Your task to perform on an android device: check out phone information Image 0: 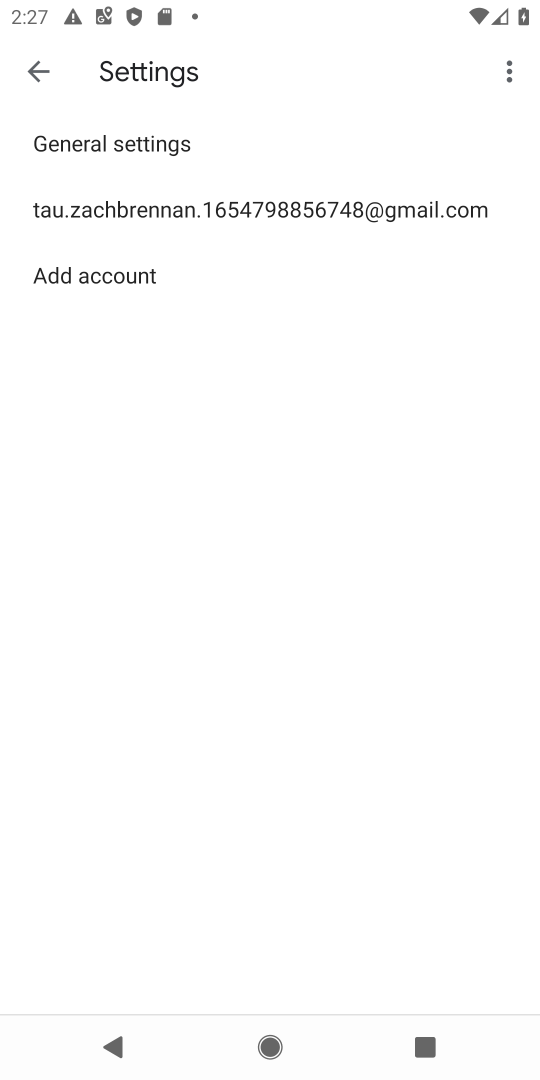
Step 0: press back button
Your task to perform on an android device: check out phone information Image 1: 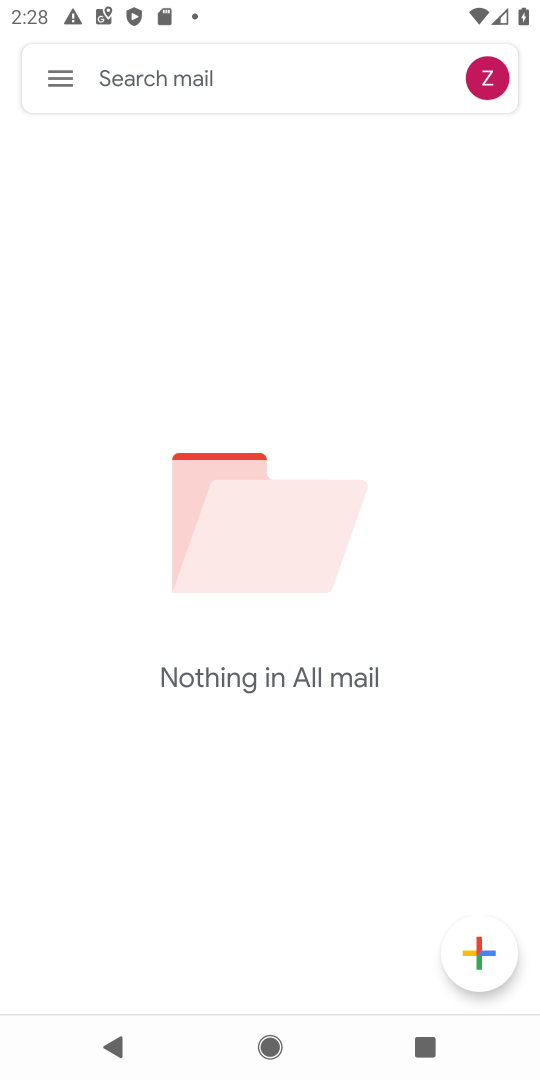
Step 1: press back button
Your task to perform on an android device: check out phone information Image 2: 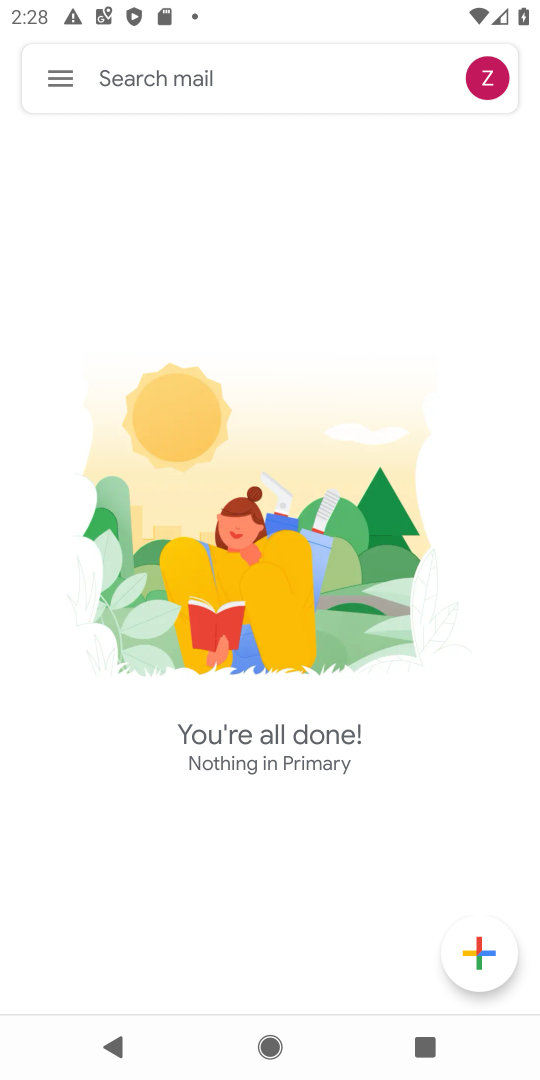
Step 2: press home button
Your task to perform on an android device: check out phone information Image 3: 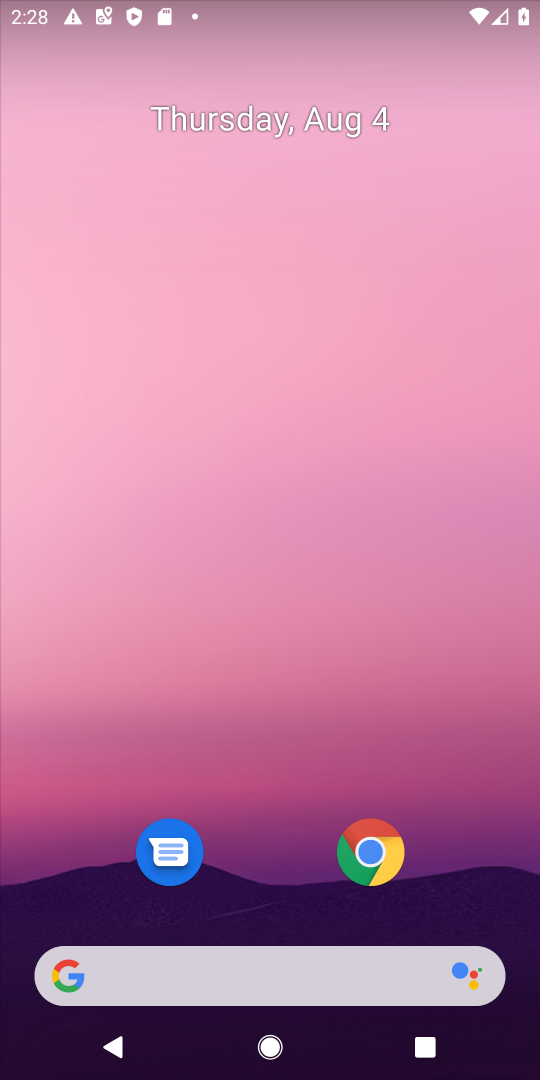
Step 3: drag from (127, 877) to (279, 61)
Your task to perform on an android device: check out phone information Image 4: 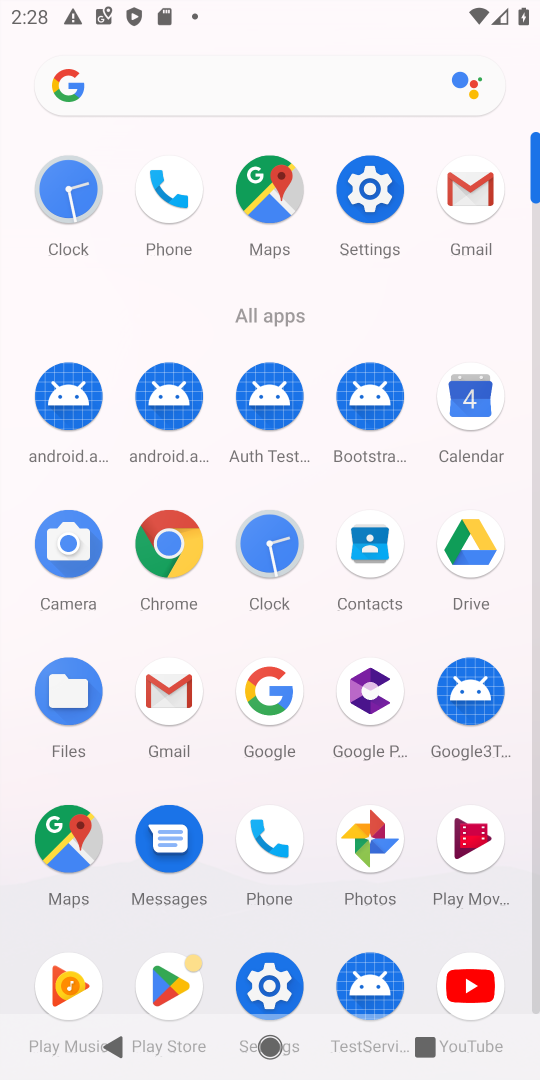
Step 4: click (357, 202)
Your task to perform on an android device: check out phone information Image 5: 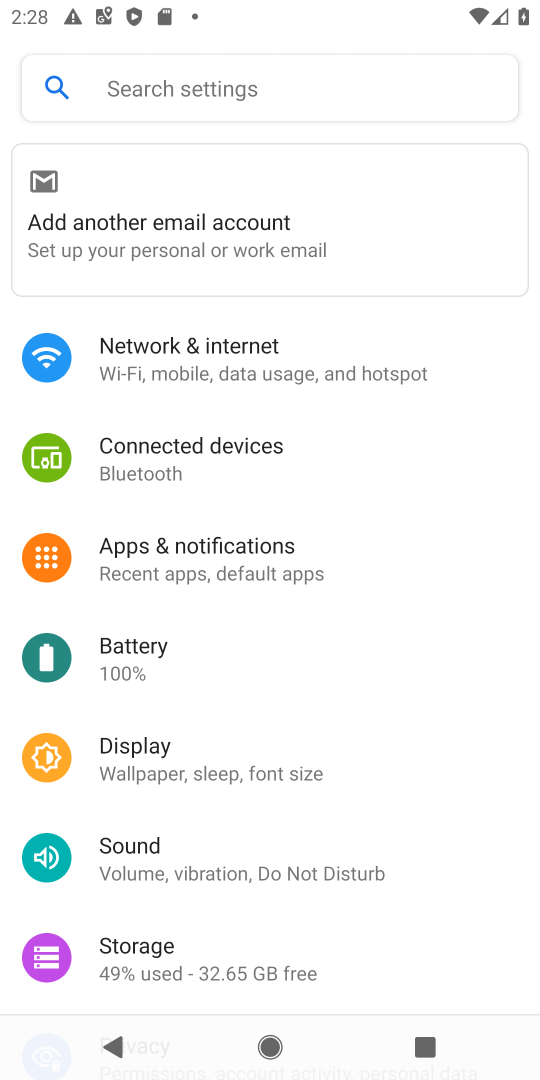
Step 5: drag from (203, 941) to (332, 129)
Your task to perform on an android device: check out phone information Image 6: 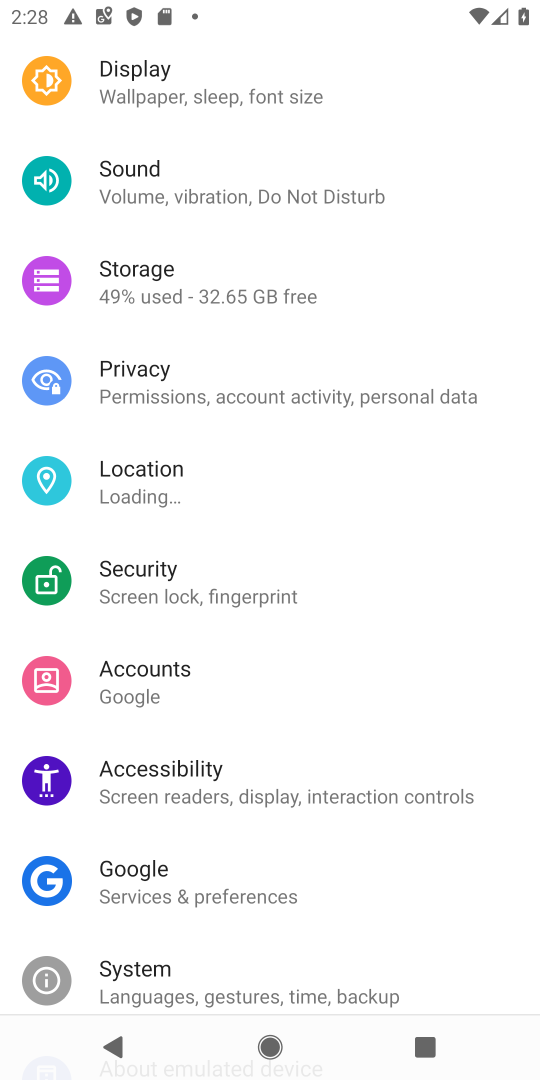
Step 6: drag from (189, 877) to (359, 69)
Your task to perform on an android device: check out phone information Image 7: 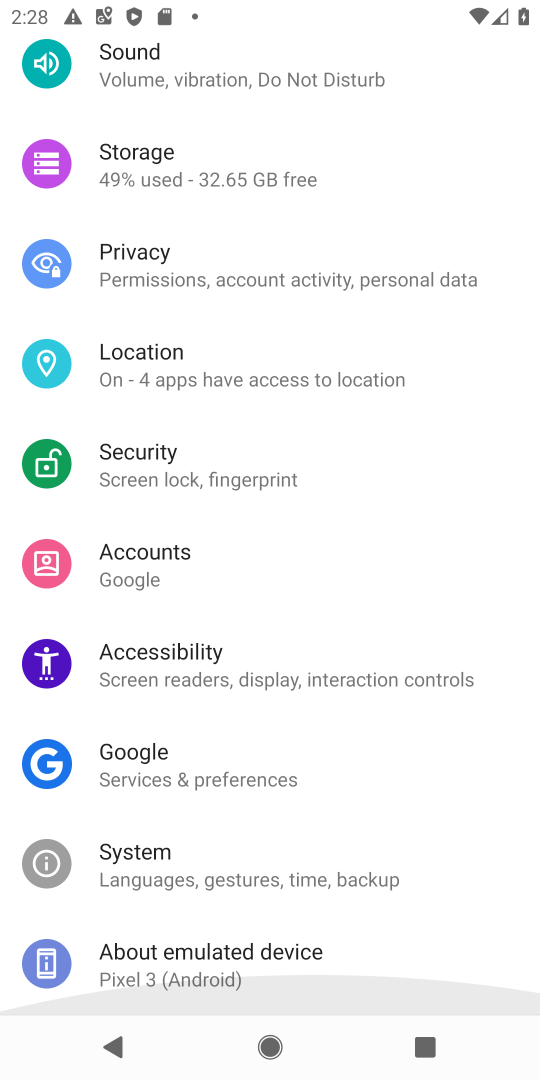
Step 7: drag from (172, 788) to (309, 28)
Your task to perform on an android device: check out phone information Image 8: 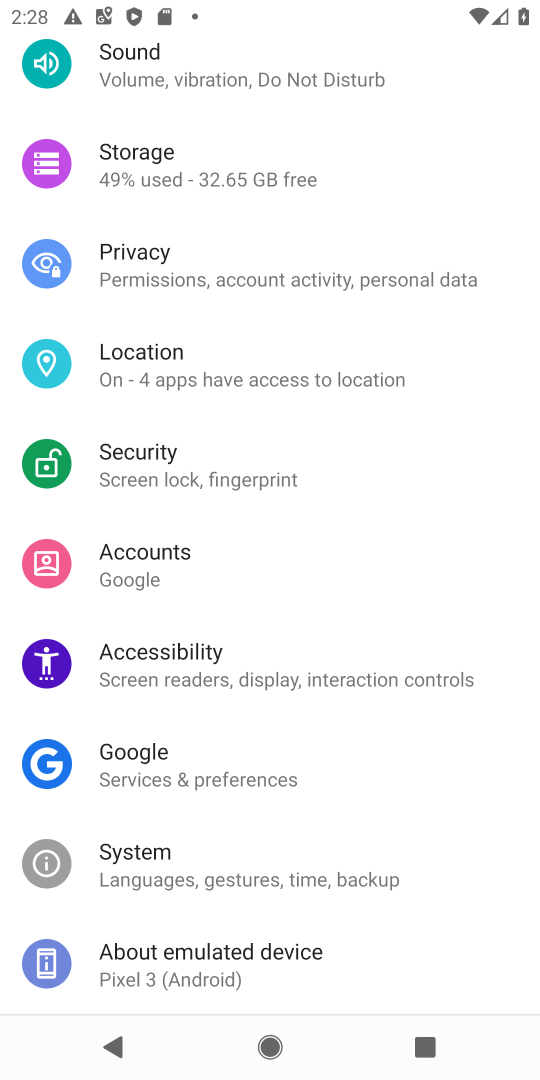
Step 8: click (195, 969)
Your task to perform on an android device: check out phone information Image 9: 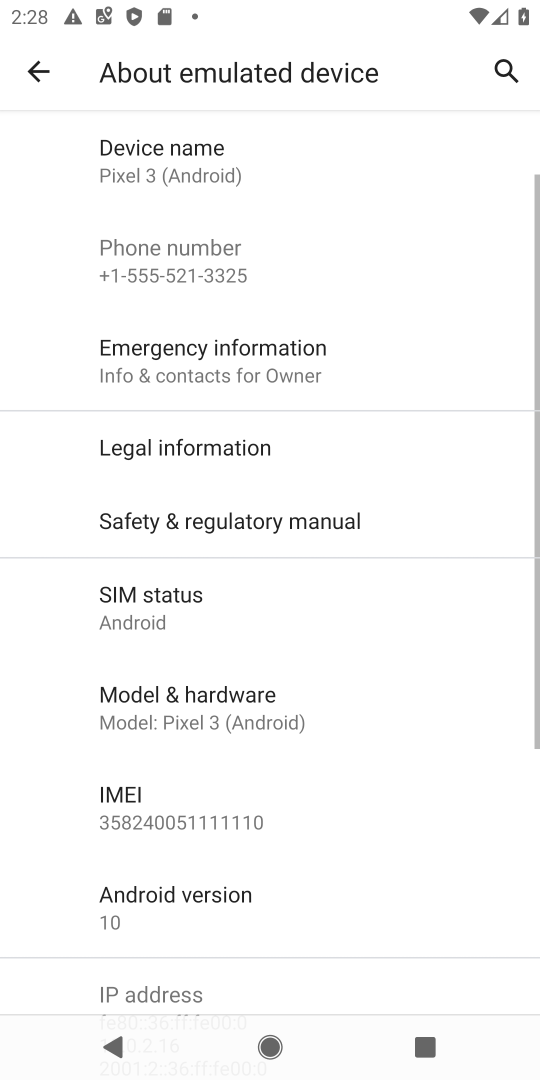
Step 9: task complete